Your task to perform on an android device: toggle javascript in the chrome app Image 0: 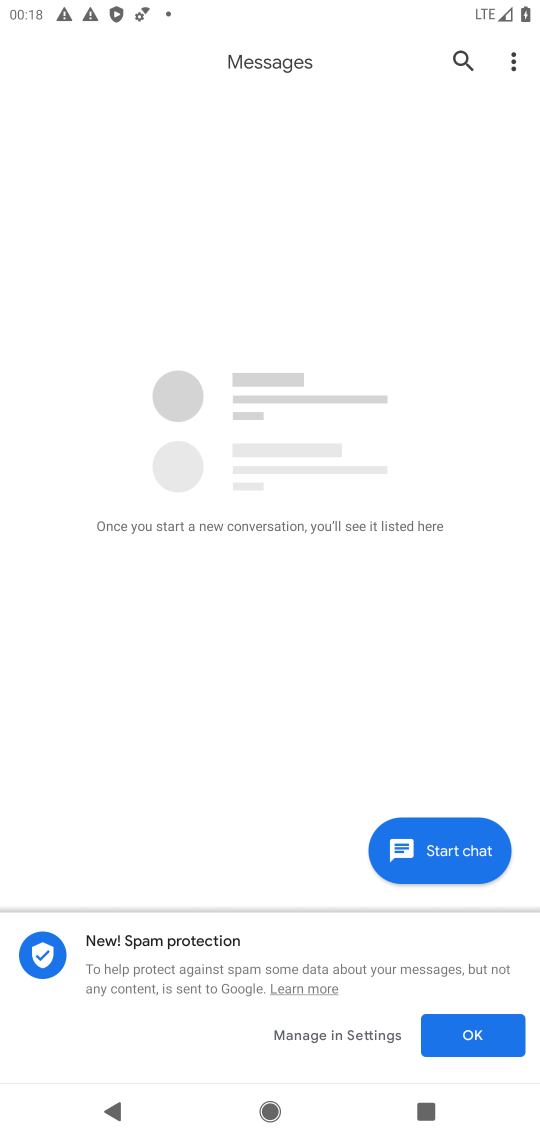
Step 0: press home button
Your task to perform on an android device: toggle javascript in the chrome app Image 1: 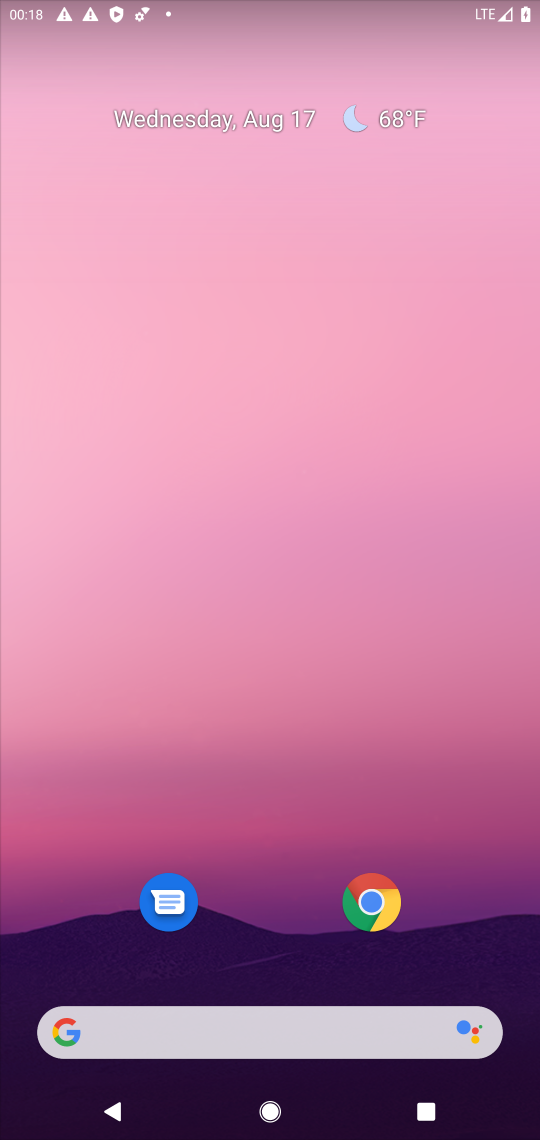
Step 1: drag from (303, 958) to (493, 50)
Your task to perform on an android device: toggle javascript in the chrome app Image 2: 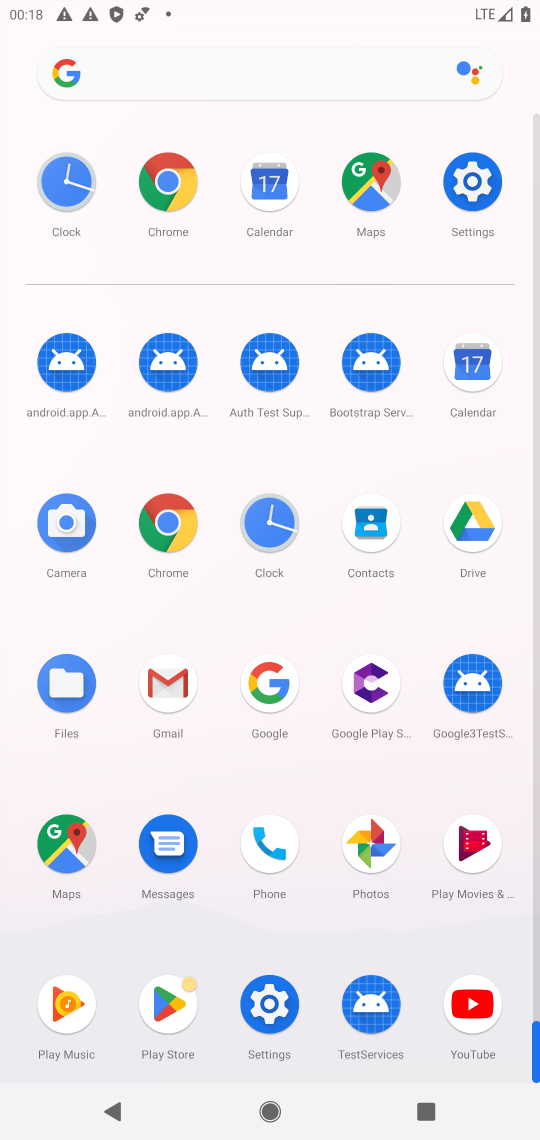
Step 2: click (173, 530)
Your task to perform on an android device: toggle javascript in the chrome app Image 3: 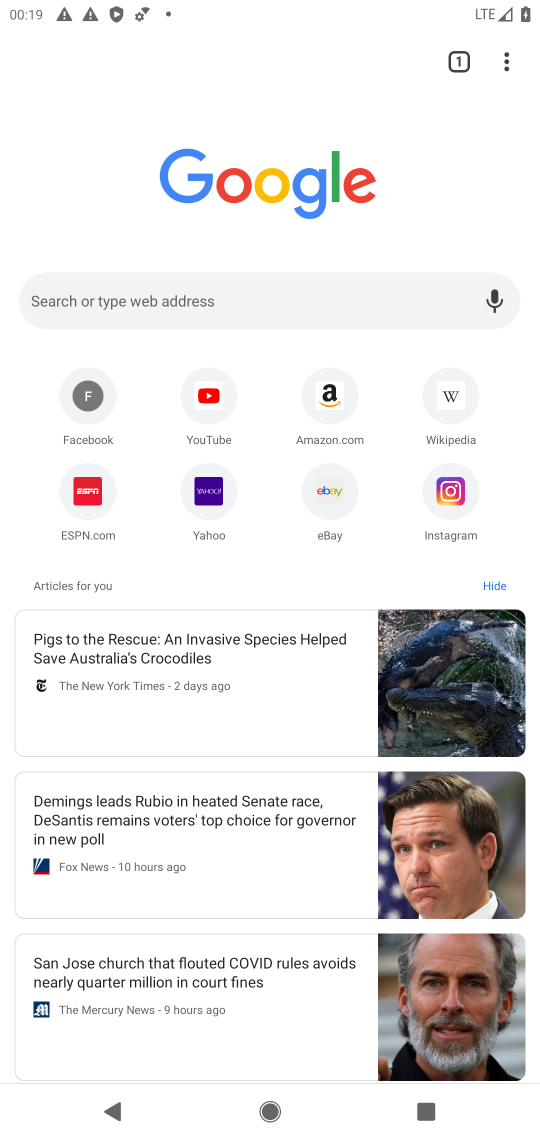
Step 3: click (502, 72)
Your task to perform on an android device: toggle javascript in the chrome app Image 4: 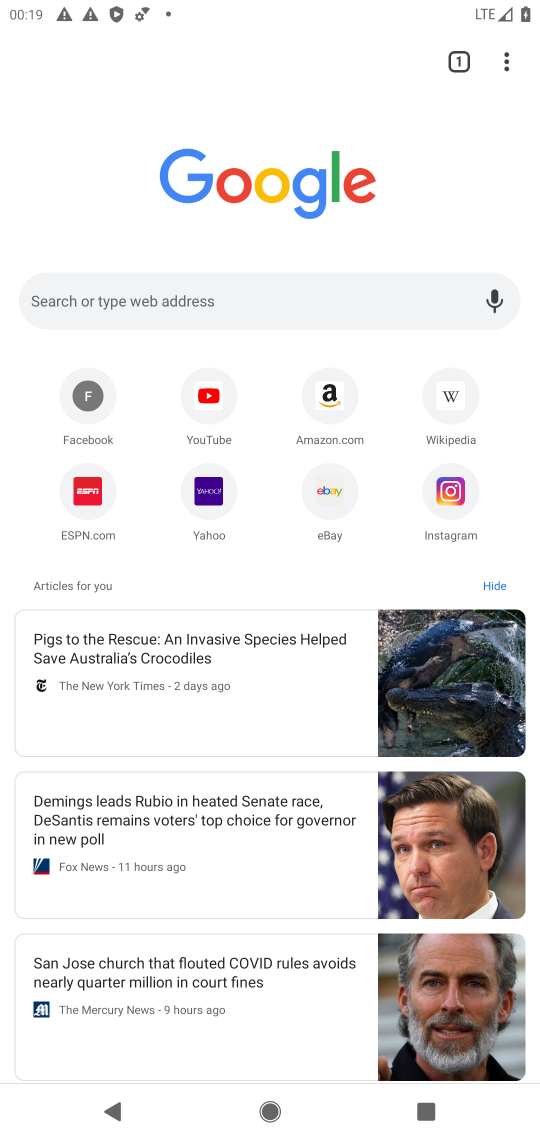
Step 4: click (508, 65)
Your task to perform on an android device: toggle javascript in the chrome app Image 5: 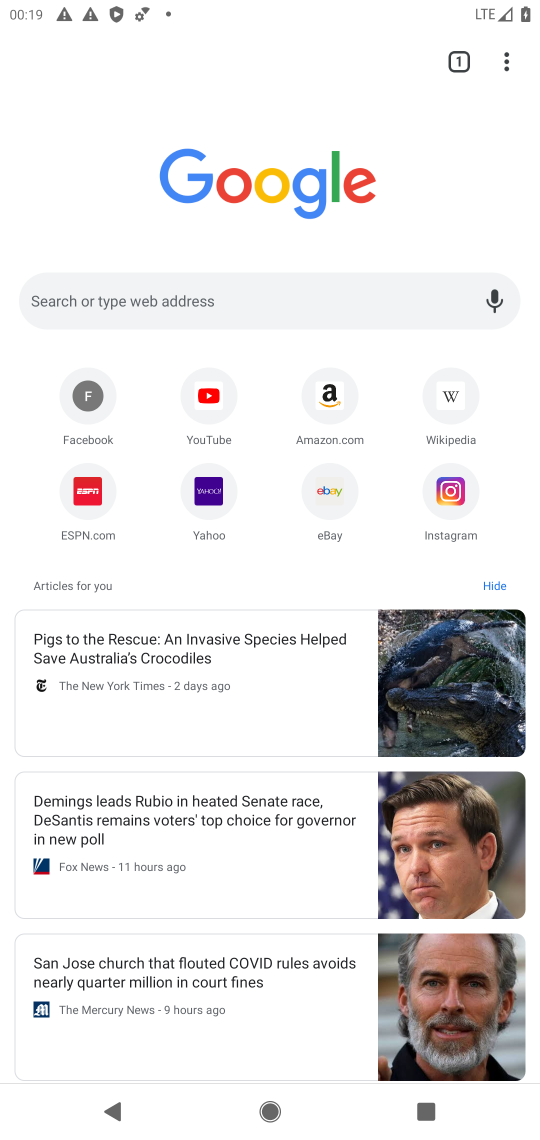
Step 5: click (507, 52)
Your task to perform on an android device: toggle javascript in the chrome app Image 6: 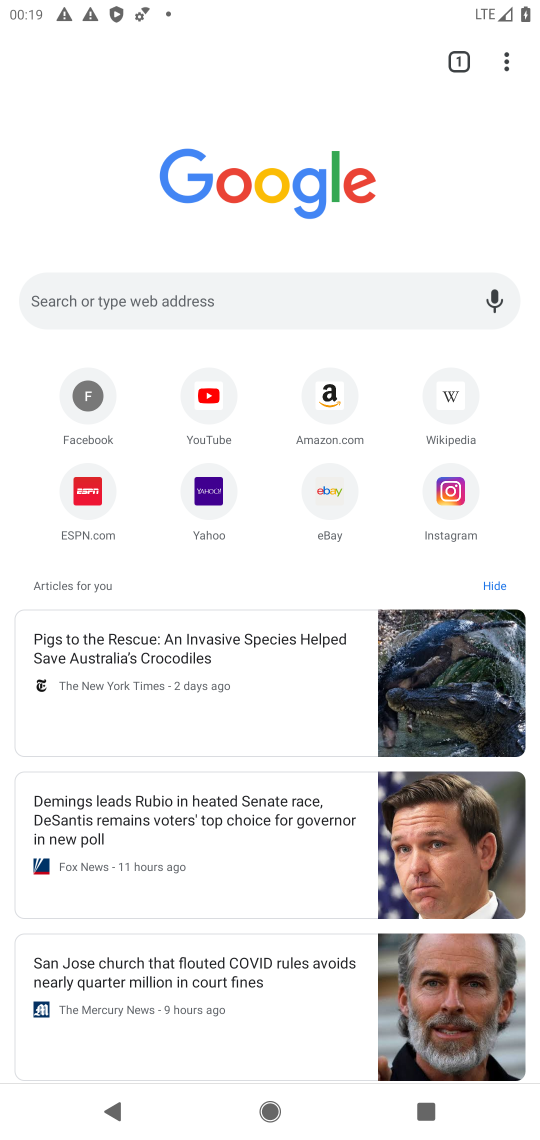
Step 6: click (507, 52)
Your task to perform on an android device: toggle javascript in the chrome app Image 7: 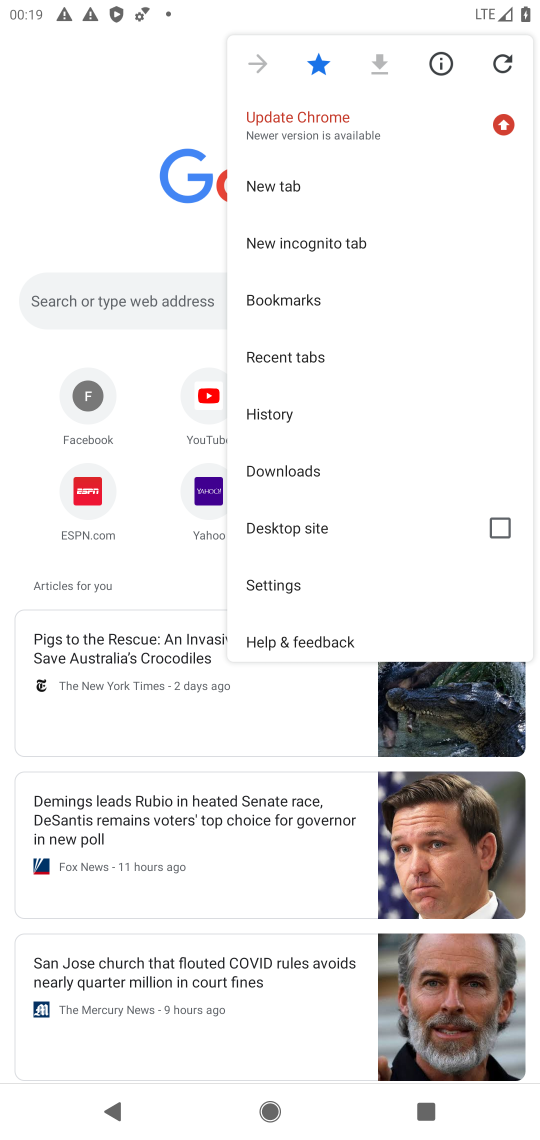
Step 7: click (300, 570)
Your task to perform on an android device: toggle javascript in the chrome app Image 8: 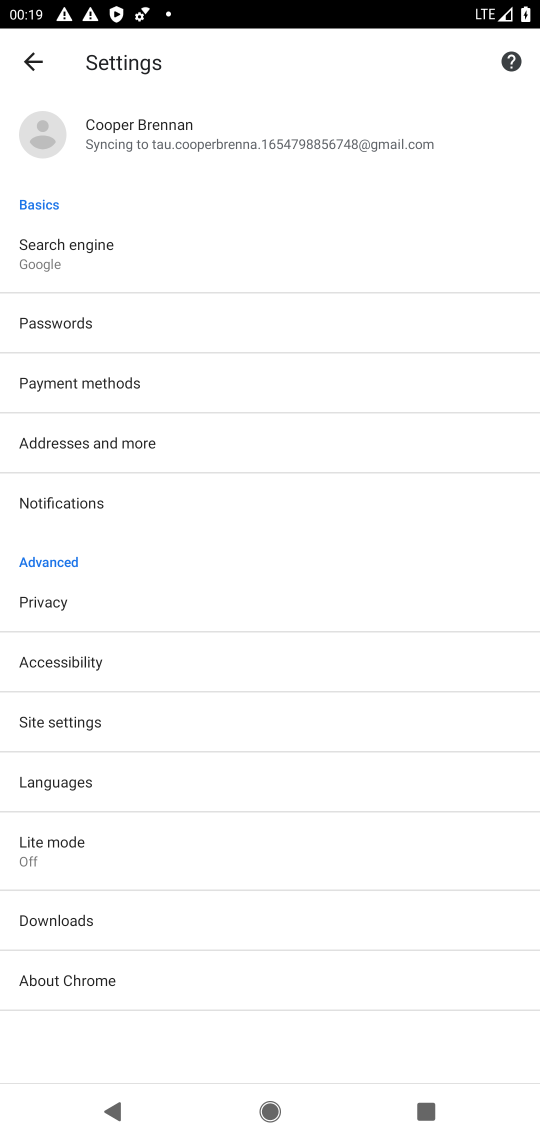
Step 8: drag from (121, 943) to (188, 513)
Your task to perform on an android device: toggle javascript in the chrome app Image 9: 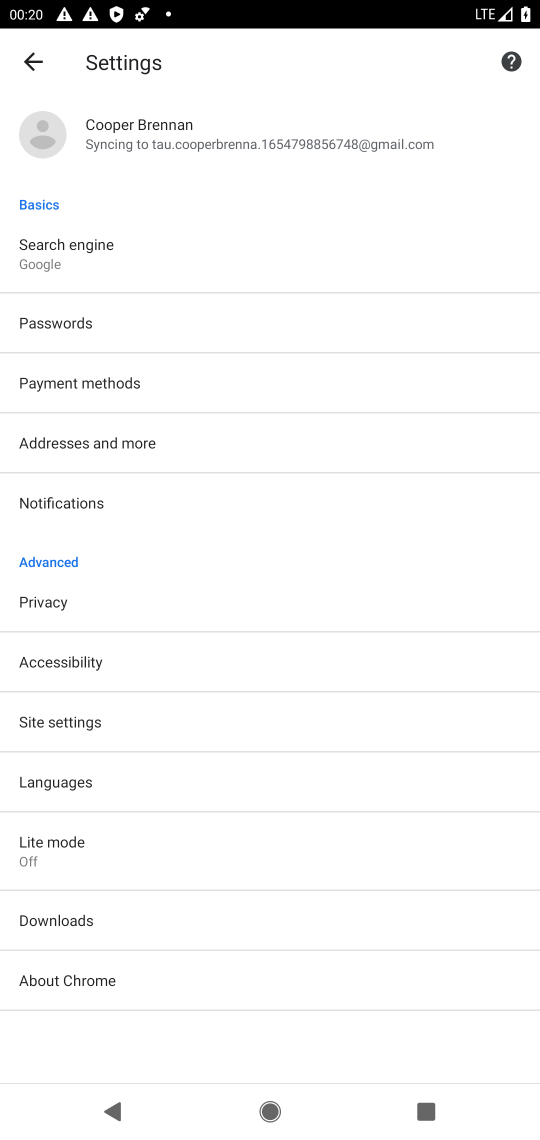
Step 9: click (100, 719)
Your task to perform on an android device: toggle javascript in the chrome app Image 10: 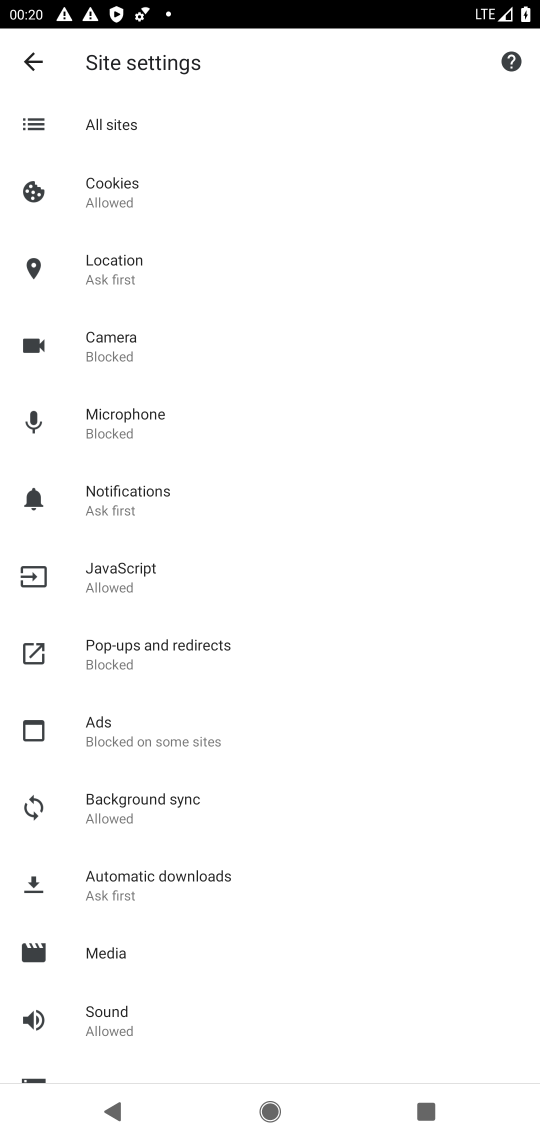
Step 10: click (149, 584)
Your task to perform on an android device: toggle javascript in the chrome app Image 11: 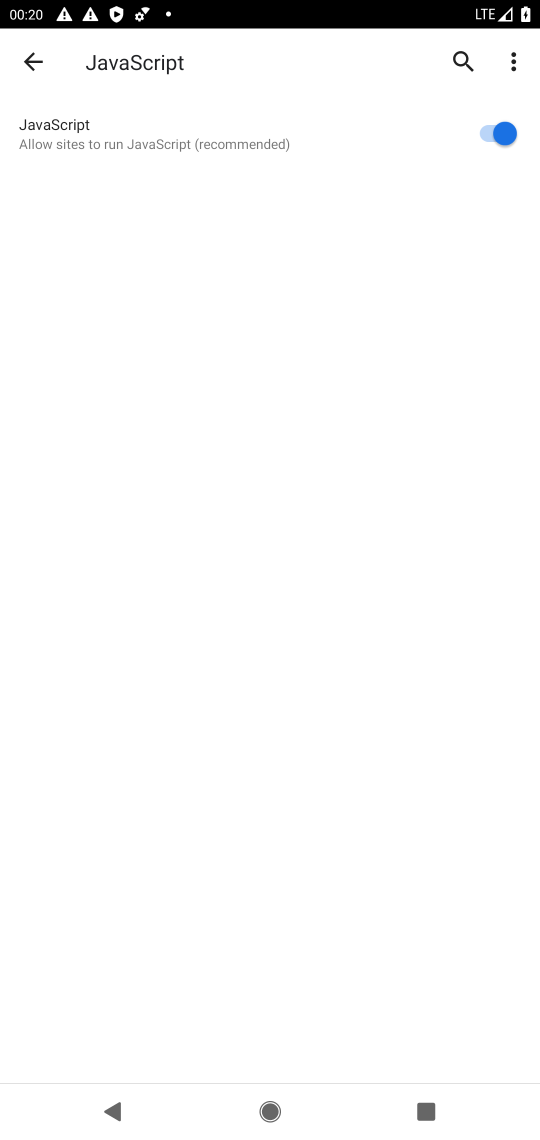
Step 11: click (475, 128)
Your task to perform on an android device: toggle javascript in the chrome app Image 12: 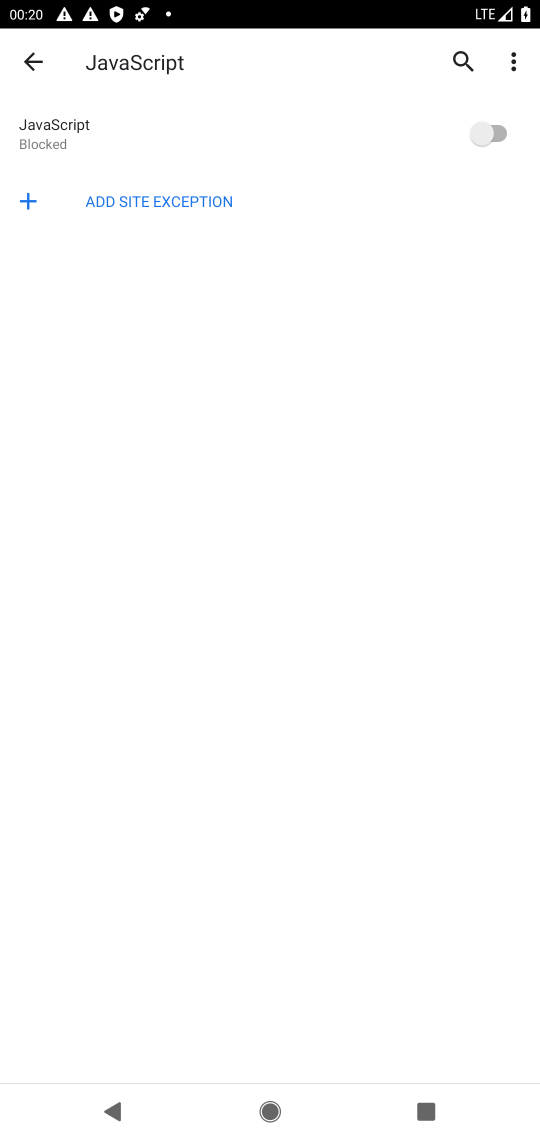
Step 12: task complete